Your task to perform on an android device: turn on data saver in the chrome app Image 0: 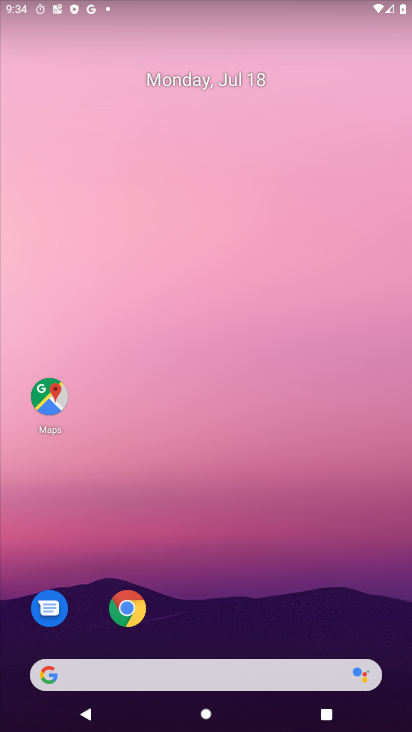
Step 0: click (125, 612)
Your task to perform on an android device: turn on data saver in the chrome app Image 1: 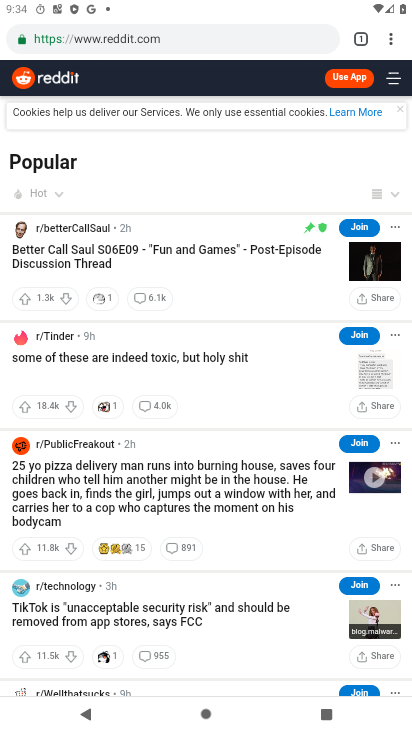
Step 1: click (389, 37)
Your task to perform on an android device: turn on data saver in the chrome app Image 2: 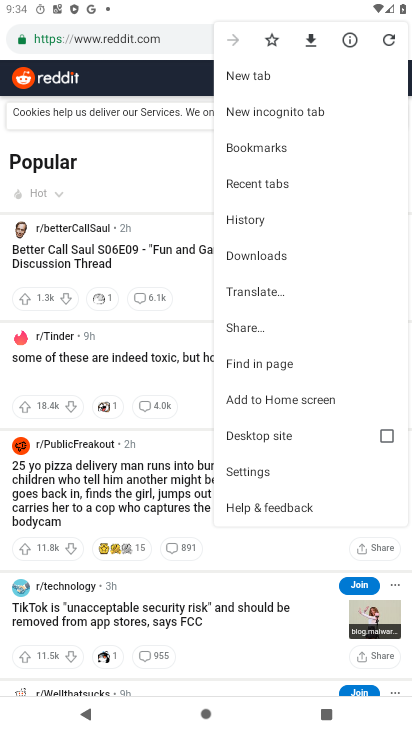
Step 2: click (252, 470)
Your task to perform on an android device: turn on data saver in the chrome app Image 3: 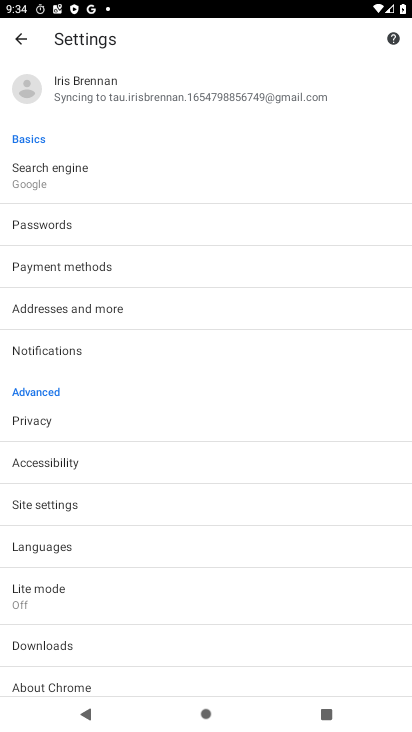
Step 3: click (41, 604)
Your task to perform on an android device: turn on data saver in the chrome app Image 4: 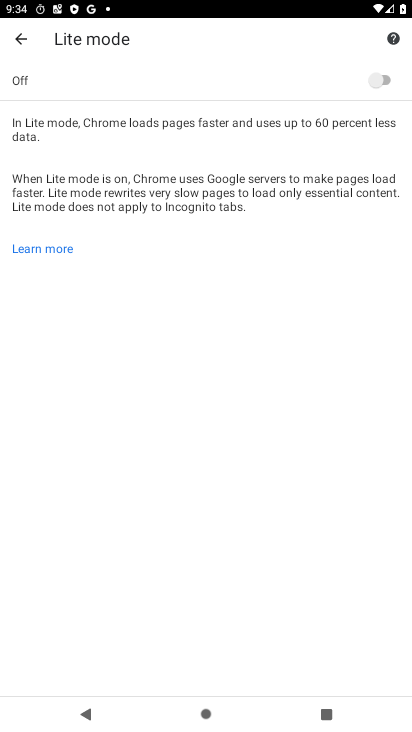
Step 4: click (388, 79)
Your task to perform on an android device: turn on data saver in the chrome app Image 5: 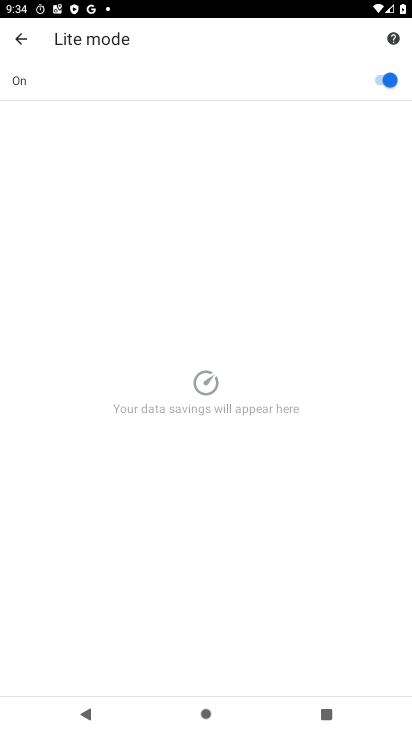
Step 5: task complete